Your task to perform on an android device: Open privacy settings Image 0: 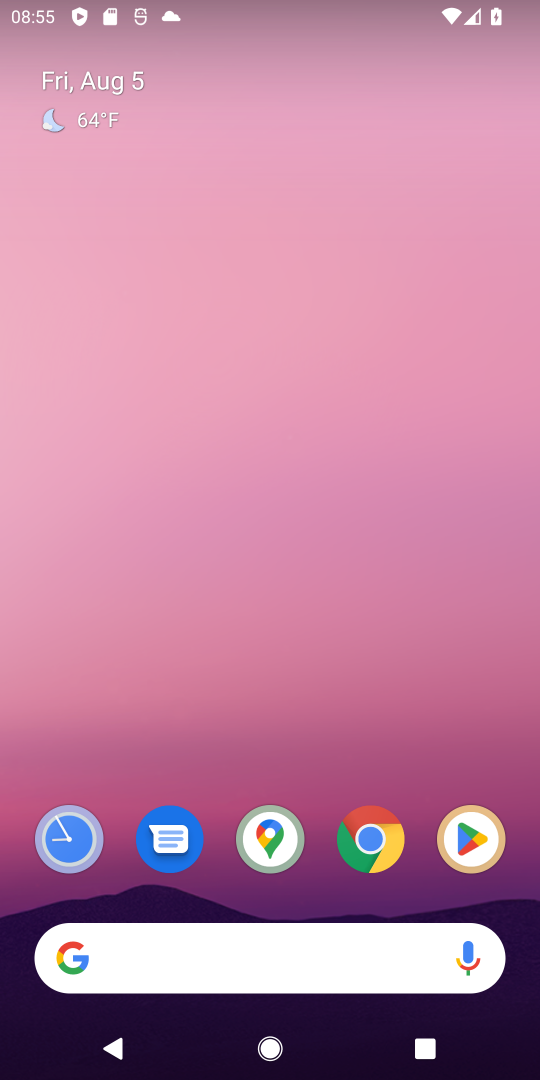
Step 0: drag from (329, 776) to (326, 204)
Your task to perform on an android device: Open privacy settings Image 1: 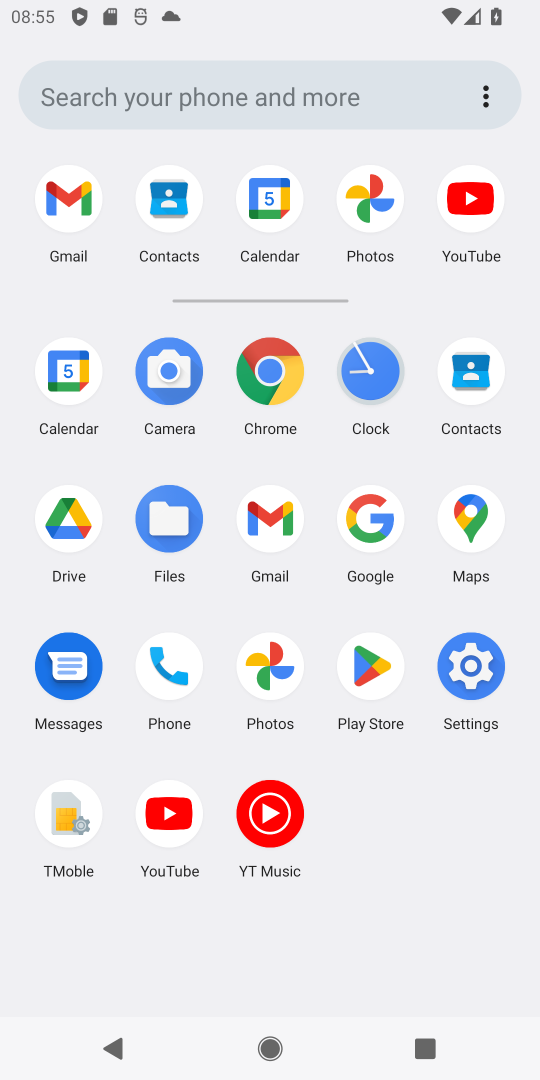
Step 1: click (464, 664)
Your task to perform on an android device: Open privacy settings Image 2: 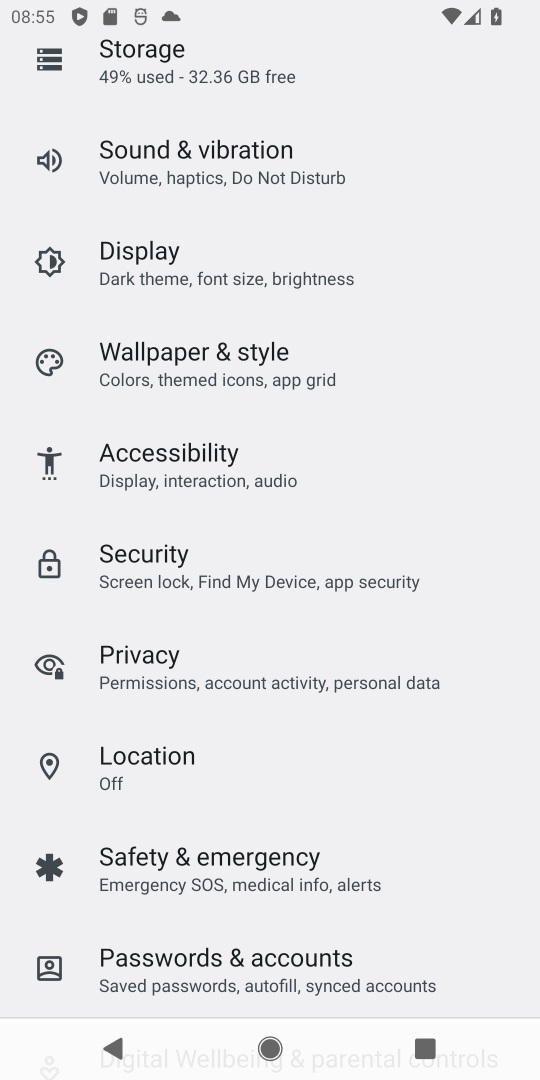
Step 2: click (144, 675)
Your task to perform on an android device: Open privacy settings Image 3: 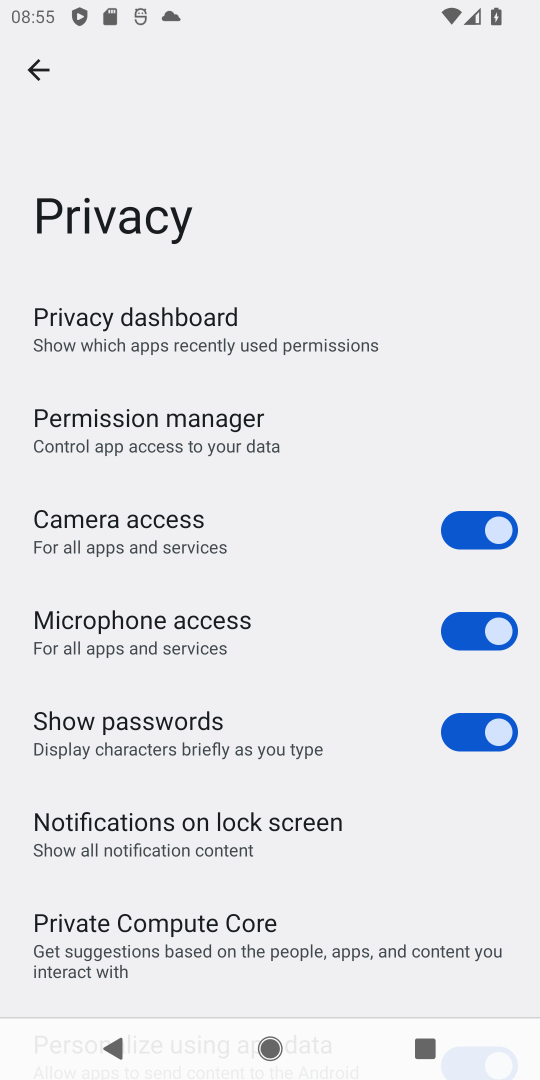
Step 3: task complete